Your task to perform on an android device: check google app version Image 0: 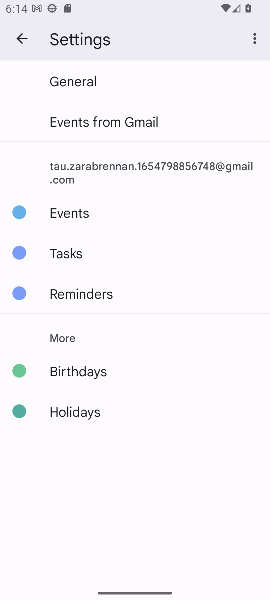
Step 0: press home button
Your task to perform on an android device: check google app version Image 1: 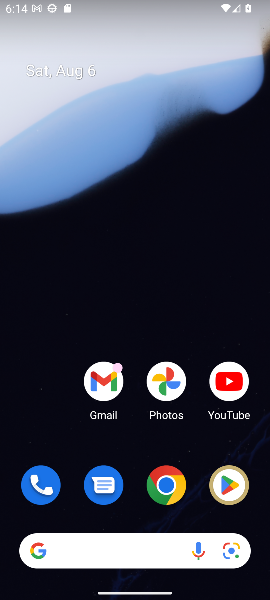
Step 1: drag from (30, 421) to (45, 3)
Your task to perform on an android device: check google app version Image 2: 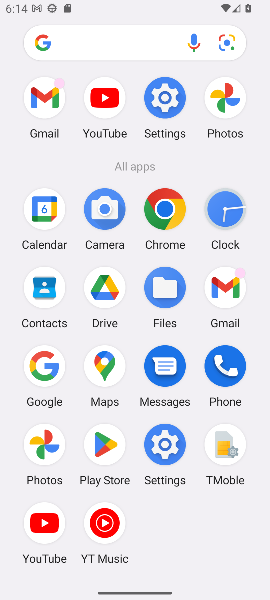
Step 2: click (43, 363)
Your task to perform on an android device: check google app version Image 3: 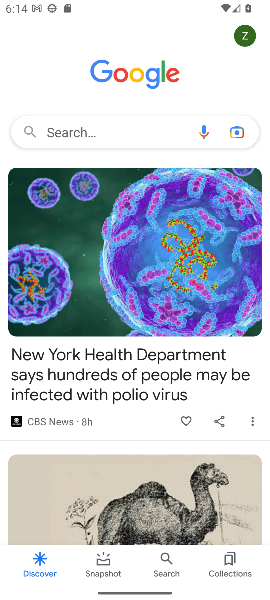
Step 3: click (246, 37)
Your task to perform on an android device: check google app version Image 4: 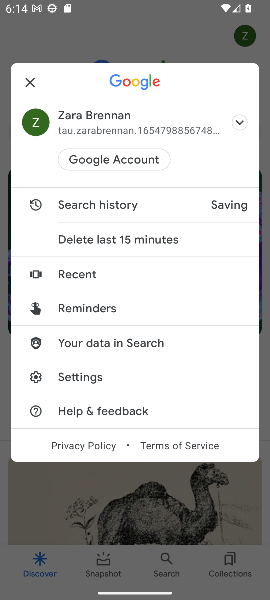
Step 4: click (72, 375)
Your task to perform on an android device: check google app version Image 5: 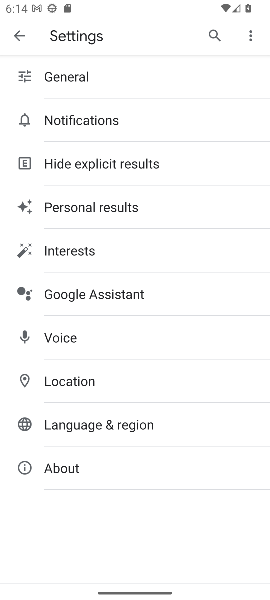
Step 5: click (57, 467)
Your task to perform on an android device: check google app version Image 6: 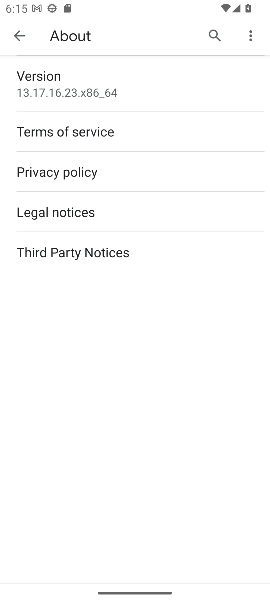
Step 6: task complete